Your task to perform on an android device: turn off notifications in google photos Image 0: 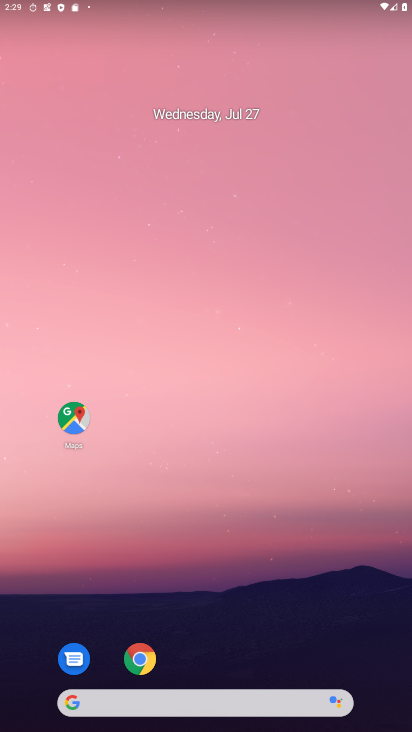
Step 0: drag from (199, 730) to (181, 116)
Your task to perform on an android device: turn off notifications in google photos Image 1: 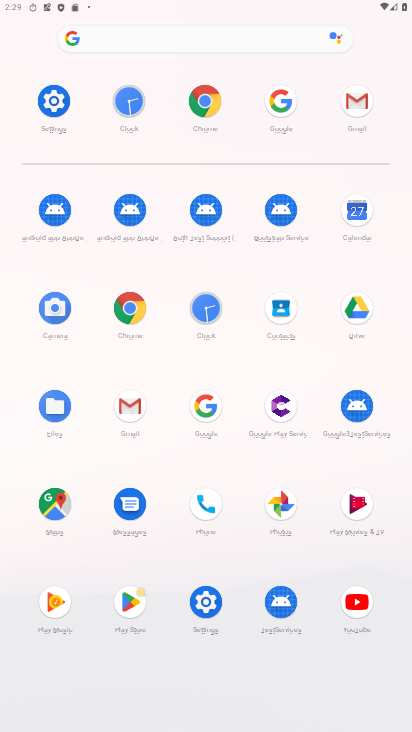
Step 1: click (279, 504)
Your task to perform on an android device: turn off notifications in google photos Image 2: 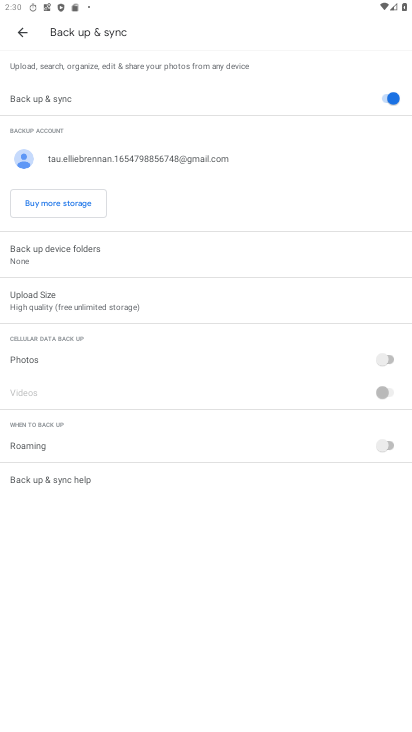
Step 2: click (22, 32)
Your task to perform on an android device: turn off notifications in google photos Image 3: 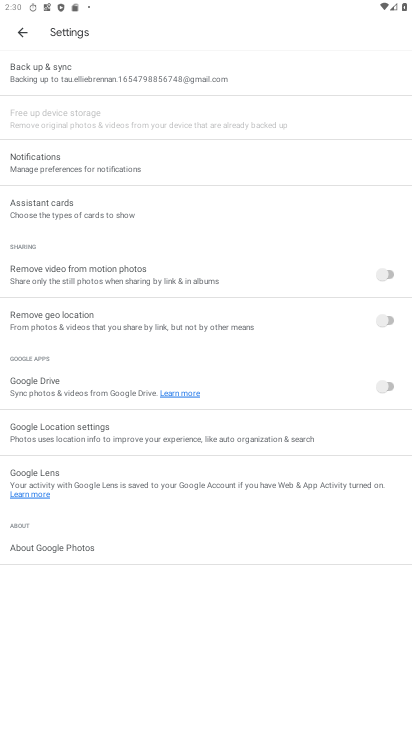
Step 3: click (47, 160)
Your task to perform on an android device: turn off notifications in google photos Image 4: 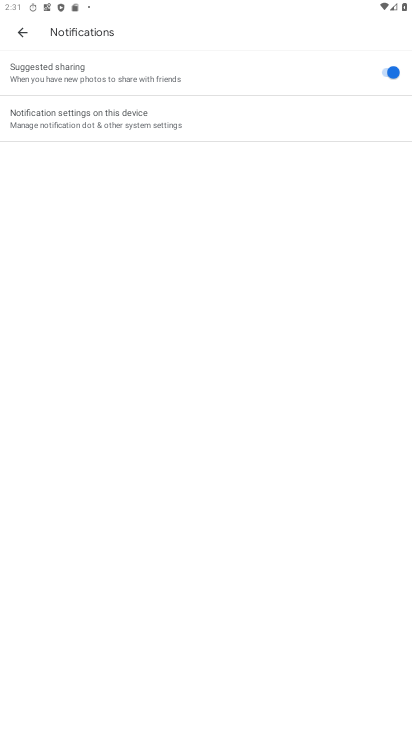
Step 4: click (63, 120)
Your task to perform on an android device: turn off notifications in google photos Image 5: 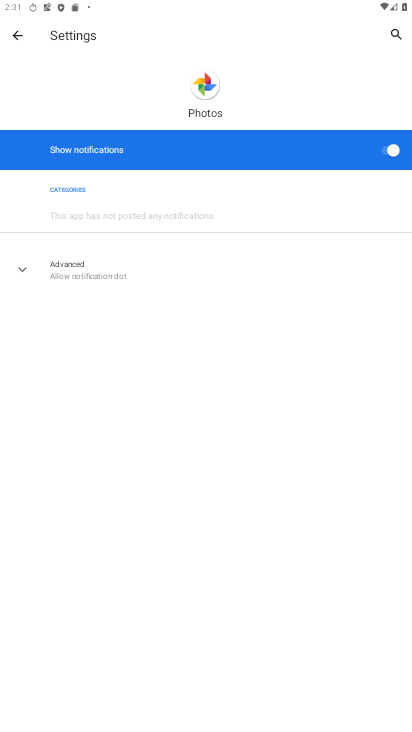
Step 5: click (394, 147)
Your task to perform on an android device: turn off notifications in google photos Image 6: 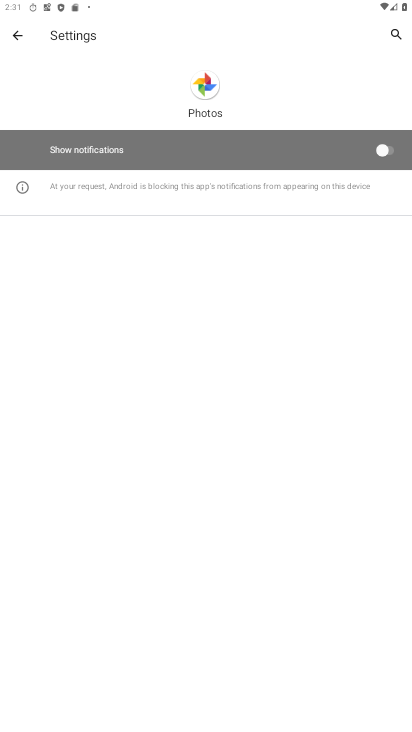
Step 6: task complete